Your task to perform on an android device: turn pop-ups on in chrome Image 0: 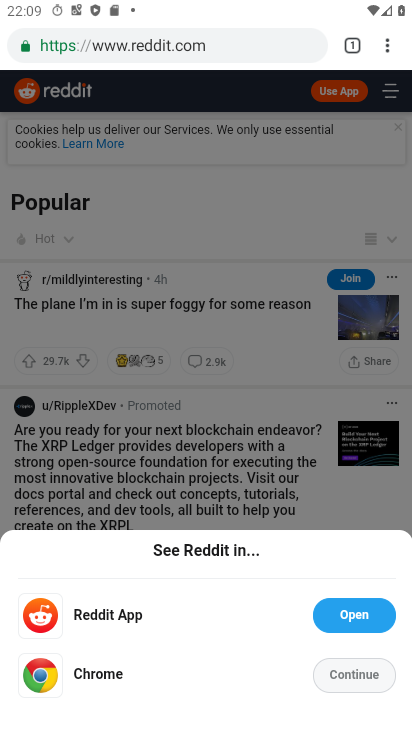
Step 0: drag from (390, 40) to (236, 544)
Your task to perform on an android device: turn pop-ups on in chrome Image 1: 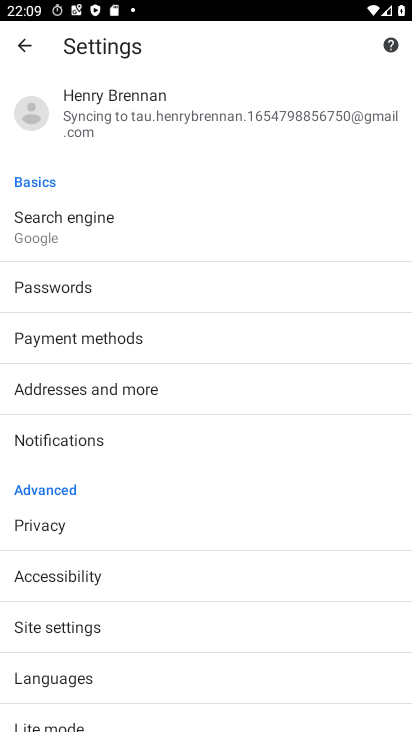
Step 1: click (100, 645)
Your task to perform on an android device: turn pop-ups on in chrome Image 2: 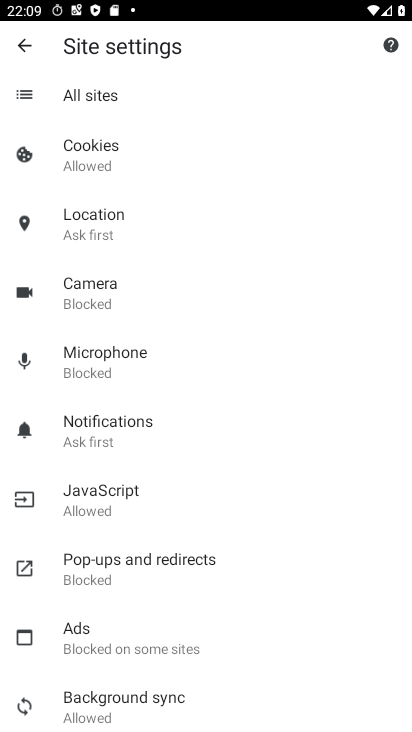
Step 2: click (128, 566)
Your task to perform on an android device: turn pop-ups on in chrome Image 3: 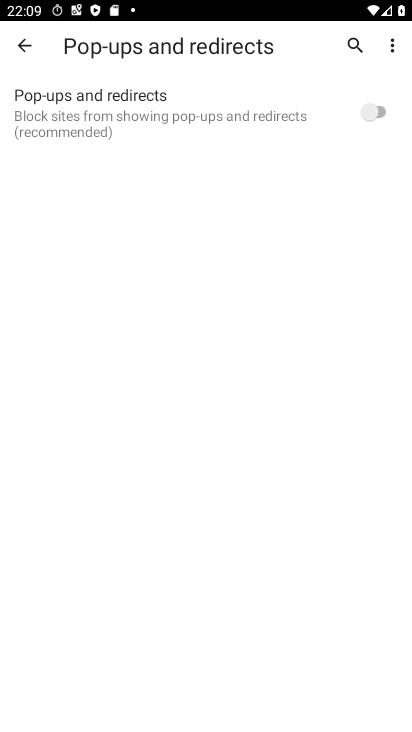
Step 3: click (376, 114)
Your task to perform on an android device: turn pop-ups on in chrome Image 4: 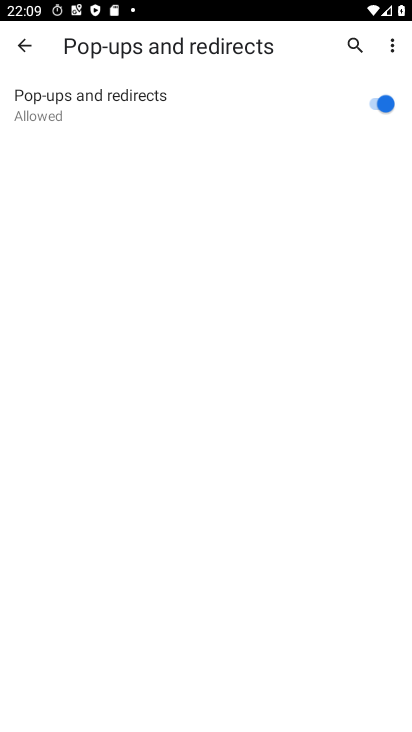
Step 4: task complete